Your task to perform on an android device: move a message to another label in the gmail app Image 0: 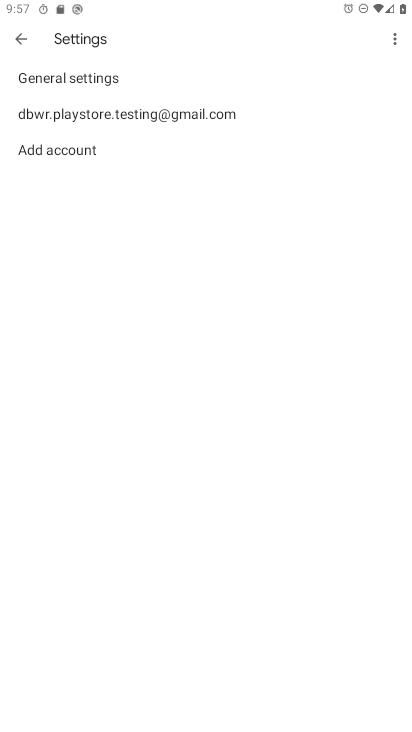
Step 0: press home button
Your task to perform on an android device: move a message to another label in the gmail app Image 1: 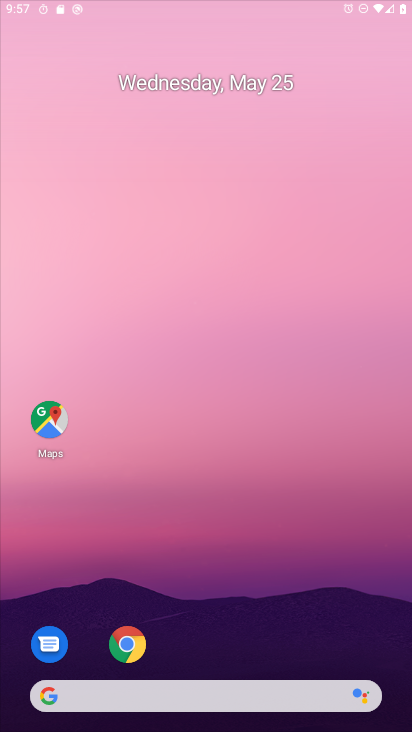
Step 1: drag from (336, 645) to (288, 59)
Your task to perform on an android device: move a message to another label in the gmail app Image 2: 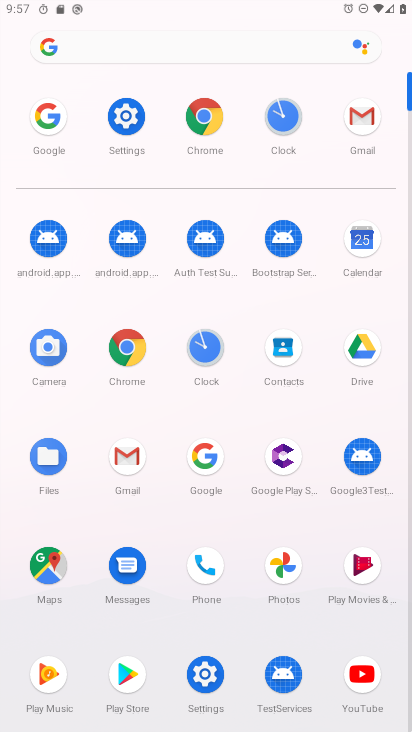
Step 2: click (126, 458)
Your task to perform on an android device: move a message to another label in the gmail app Image 3: 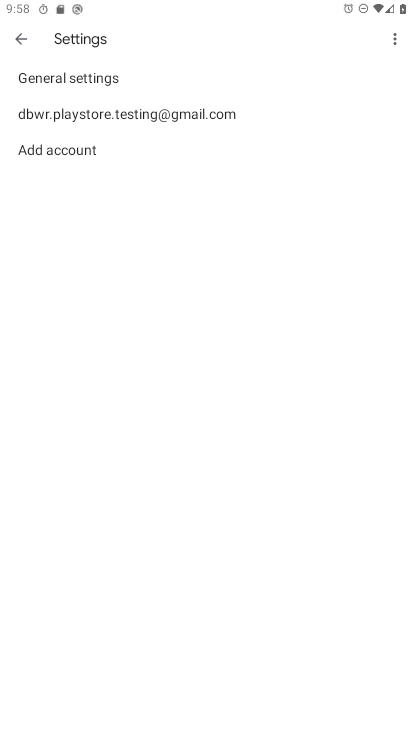
Step 3: task complete